Your task to perform on an android device: Show me recent news Image 0: 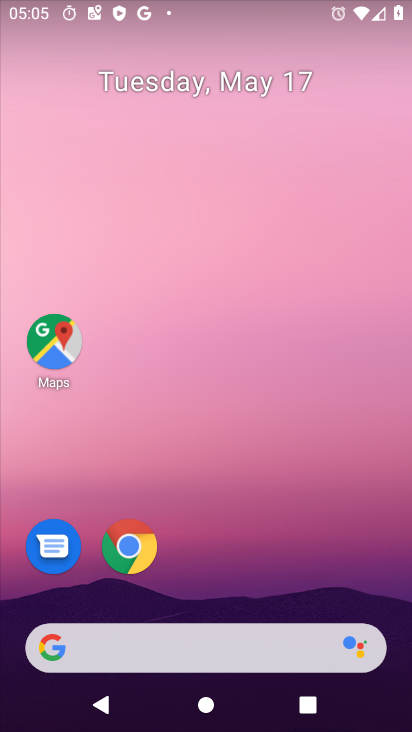
Step 0: drag from (1, 255) to (82, 250)
Your task to perform on an android device: Show me recent news Image 1: 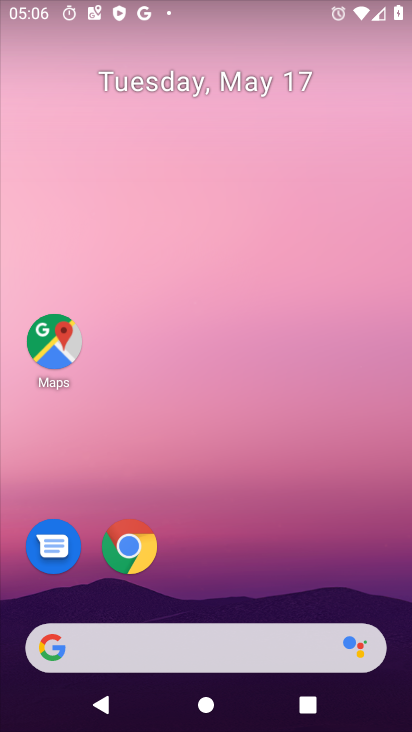
Step 1: drag from (3, 254) to (93, 238)
Your task to perform on an android device: Show me recent news Image 2: 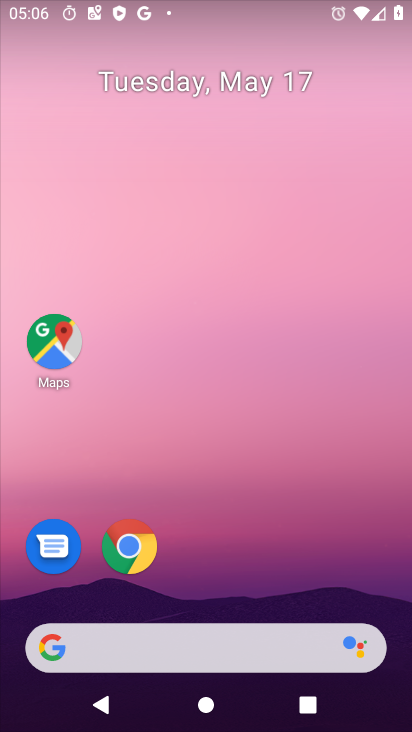
Step 2: drag from (3, 235) to (405, 252)
Your task to perform on an android device: Show me recent news Image 3: 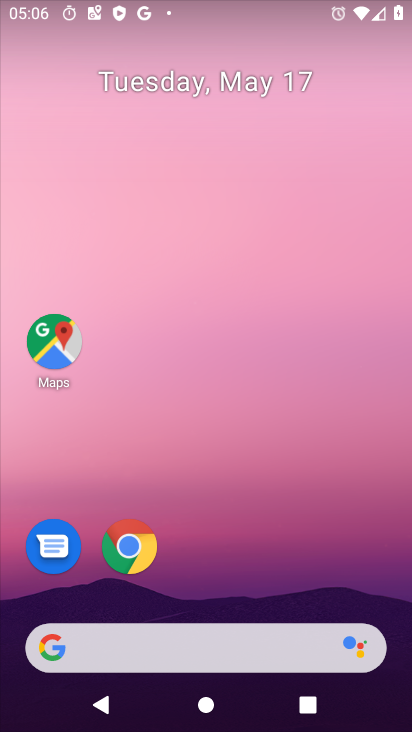
Step 3: click (2, 246)
Your task to perform on an android device: Show me recent news Image 4: 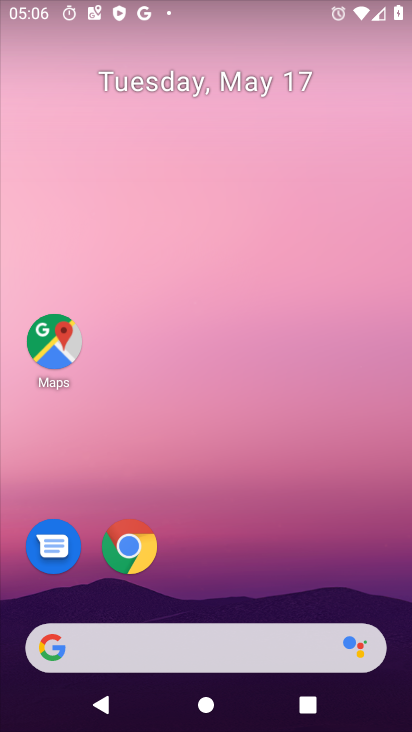
Step 4: click (2, 222)
Your task to perform on an android device: Show me recent news Image 5: 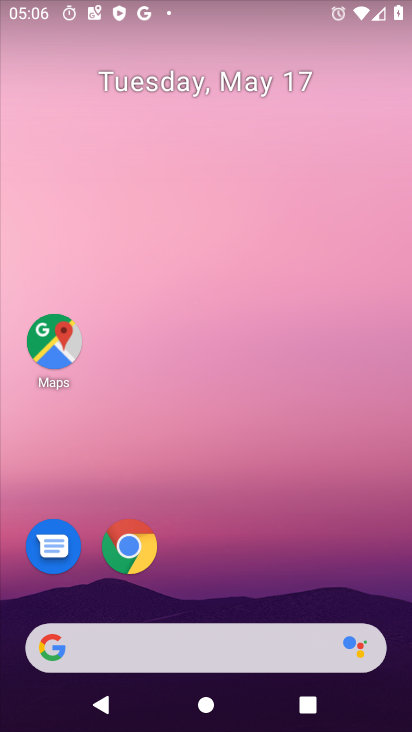
Step 5: task complete